Your task to perform on an android device: toggle pop-ups in chrome Image 0: 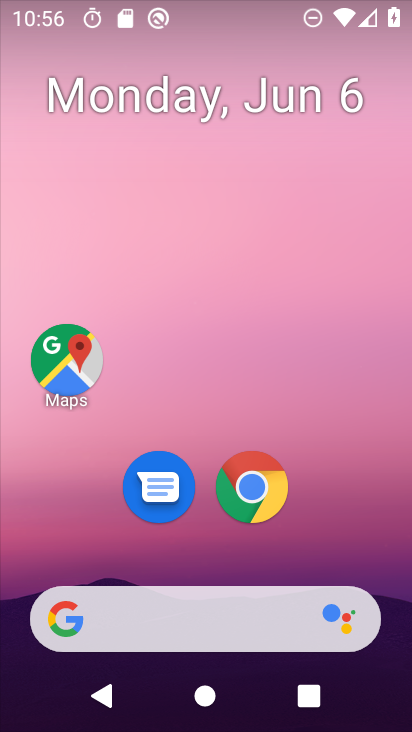
Step 0: drag from (381, 630) to (293, 39)
Your task to perform on an android device: toggle pop-ups in chrome Image 1: 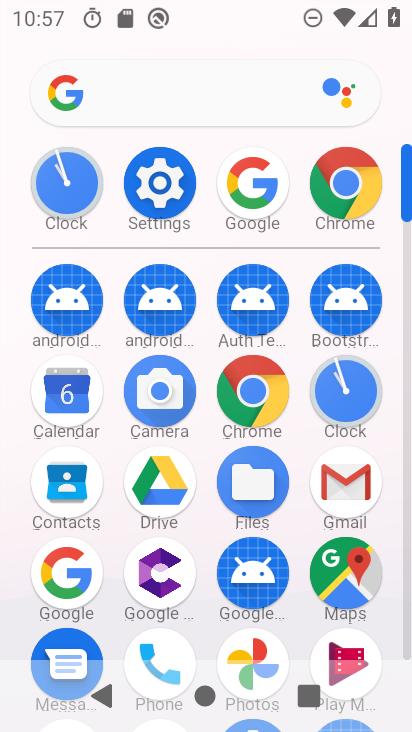
Step 1: click (244, 384)
Your task to perform on an android device: toggle pop-ups in chrome Image 2: 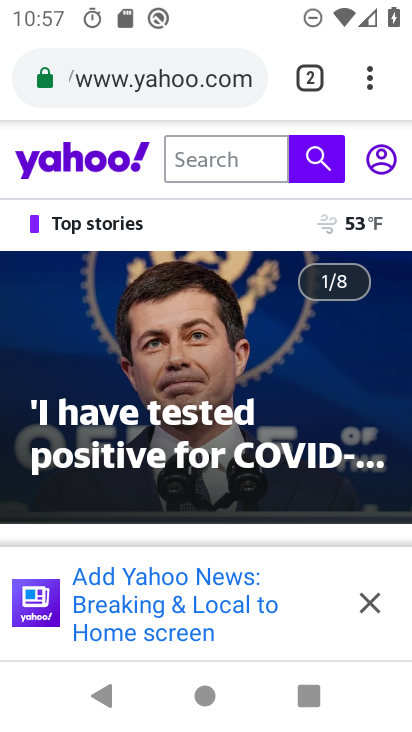
Step 2: press back button
Your task to perform on an android device: toggle pop-ups in chrome Image 3: 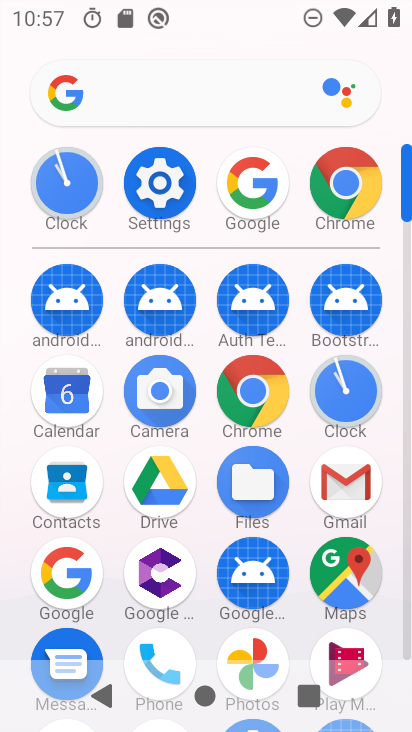
Step 3: click (331, 176)
Your task to perform on an android device: toggle pop-ups in chrome Image 4: 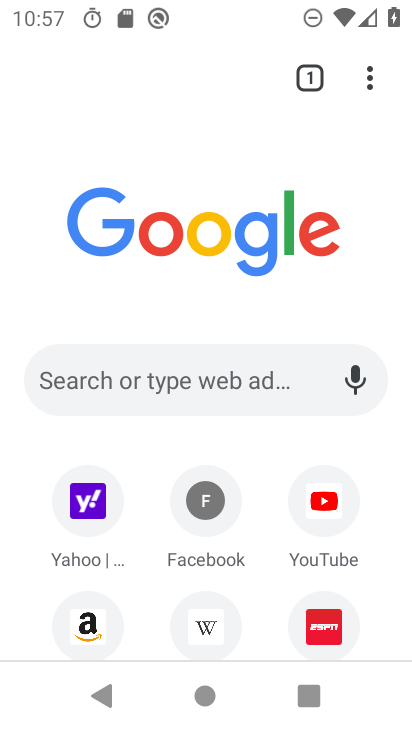
Step 4: click (367, 80)
Your task to perform on an android device: toggle pop-ups in chrome Image 5: 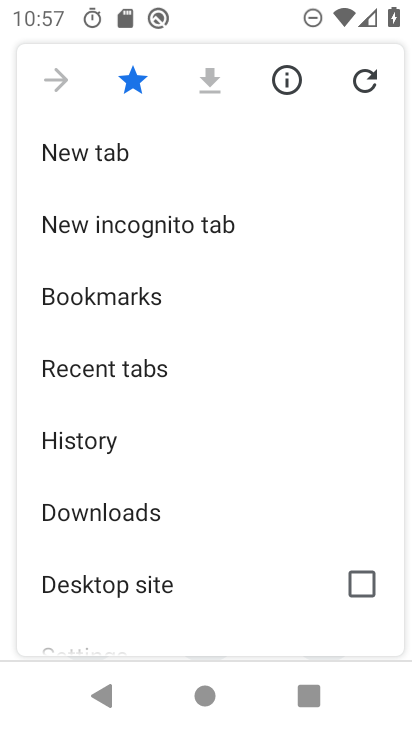
Step 5: drag from (191, 580) to (200, 96)
Your task to perform on an android device: toggle pop-ups in chrome Image 6: 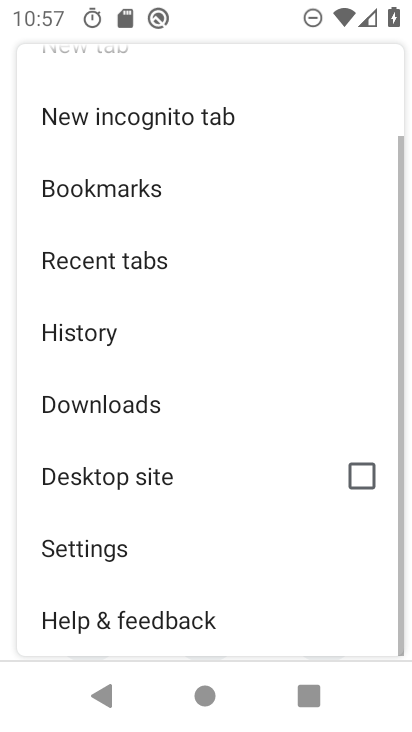
Step 6: click (143, 551)
Your task to perform on an android device: toggle pop-ups in chrome Image 7: 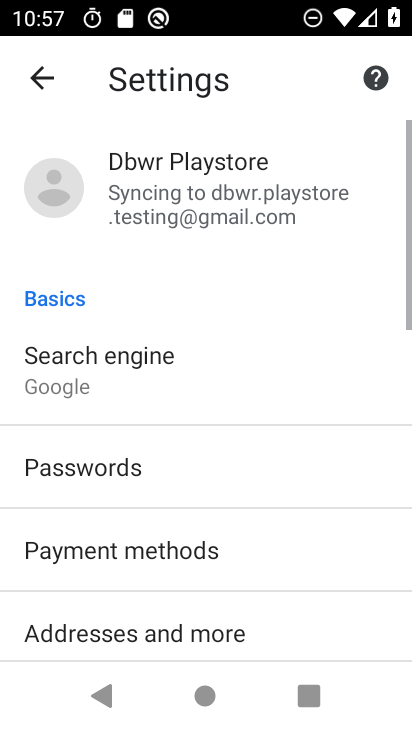
Step 7: drag from (239, 463) to (200, 86)
Your task to perform on an android device: toggle pop-ups in chrome Image 8: 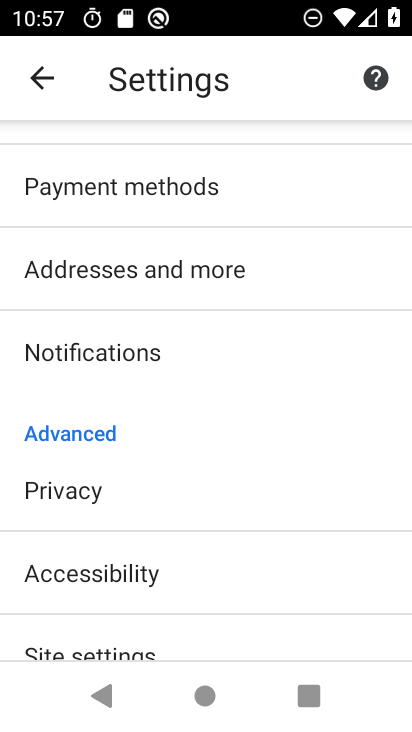
Step 8: drag from (164, 629) to (171, 294)
Your task to perform on an android device: toggle pop-ups in chrome Image 9: 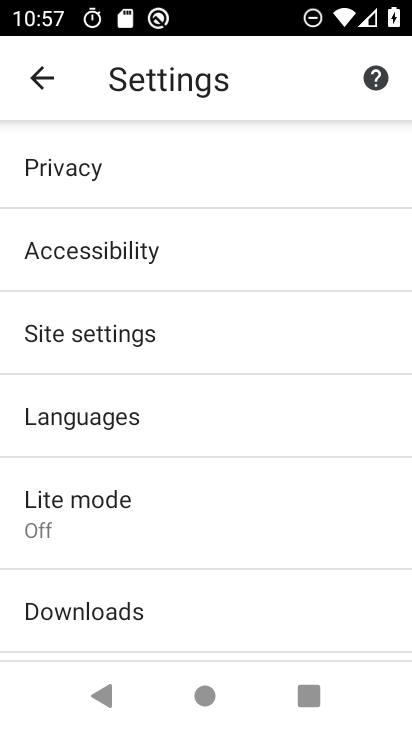
Step 9: click (155, 340)
Your task to perform on an android device: toggle pop-ups in chrome Image 10: 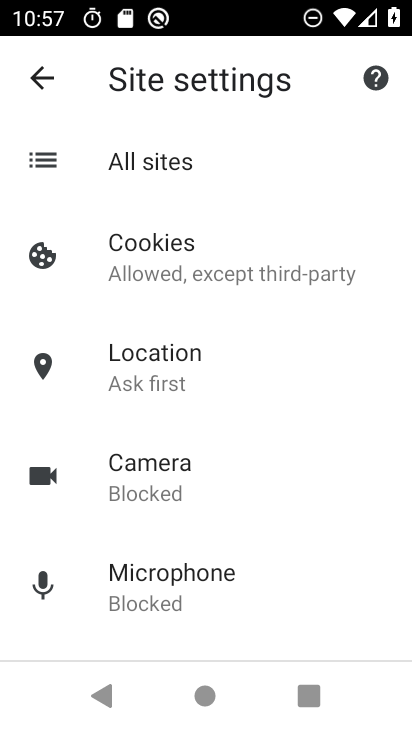
Step 10: drag from (247, 596) to (267, 160)
Your task to perform on an android device: toggle pop-ups in chrome Image 11: 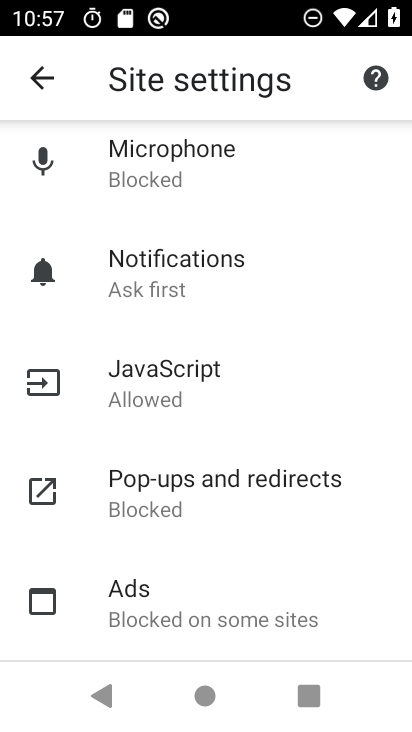
Step 11: click (251, 491)
Your task to perform on an android device: toggle pop-ups in chrome Image 12: 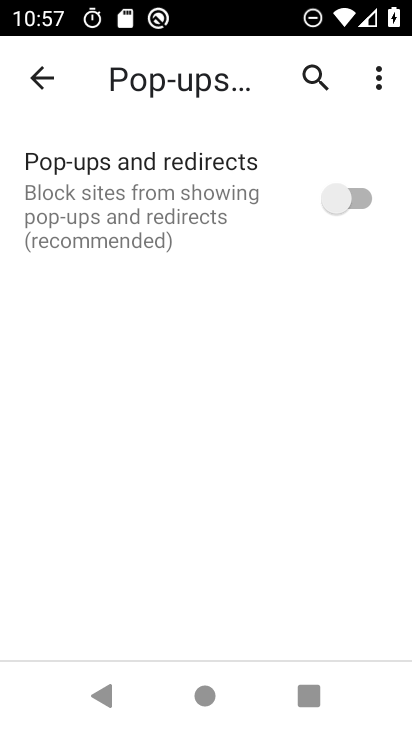
Step 12: click (338, 201)
Your task to perform on an android device: toggle pop-ups in chrome Image 13: 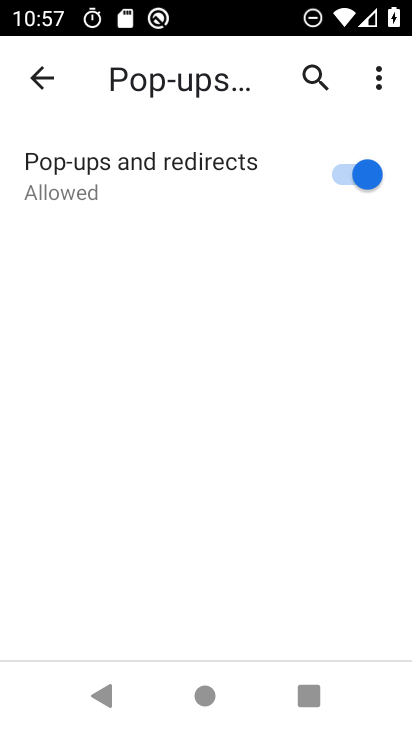
Step 13: task complete